Your task to perform on an android device: set the stopwatch Image 0: 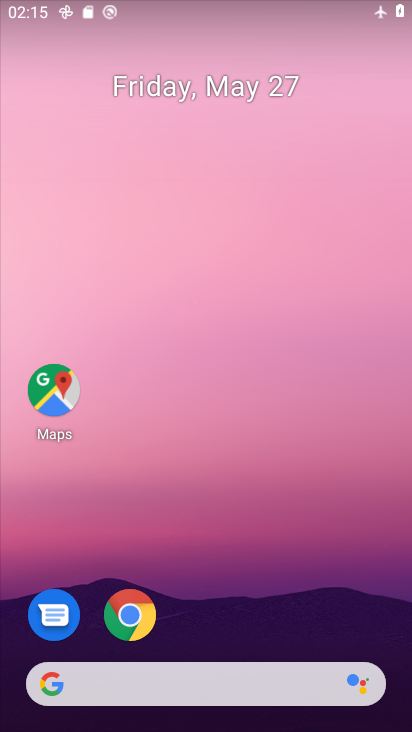
Step 0: drag from (365, 633) to (365, 181)
Your task to perform on an android device: set the stopwatch Image 1: 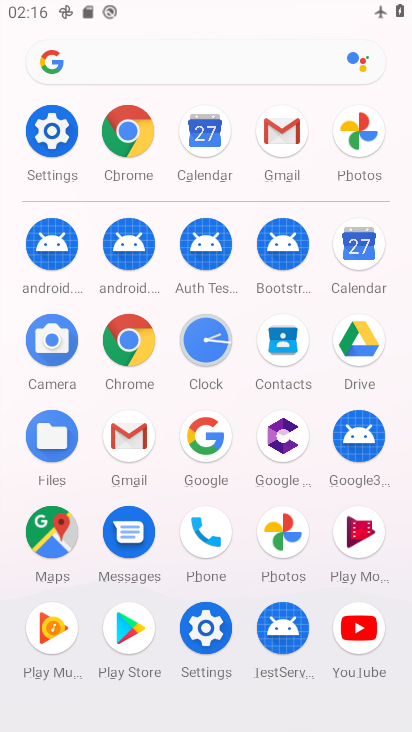
Step 1: click (204, 353)
Your task to perform on an android device: set the stopwatch Image 2: 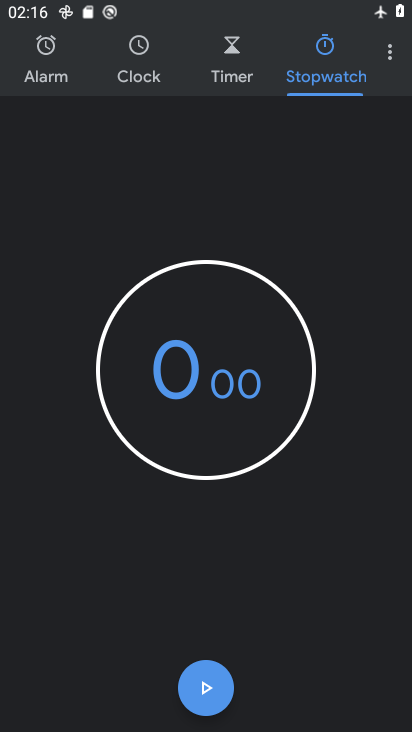
Step 2: click (221, 690)
Your task to perform on an android device: set the stopwatch Image 3: 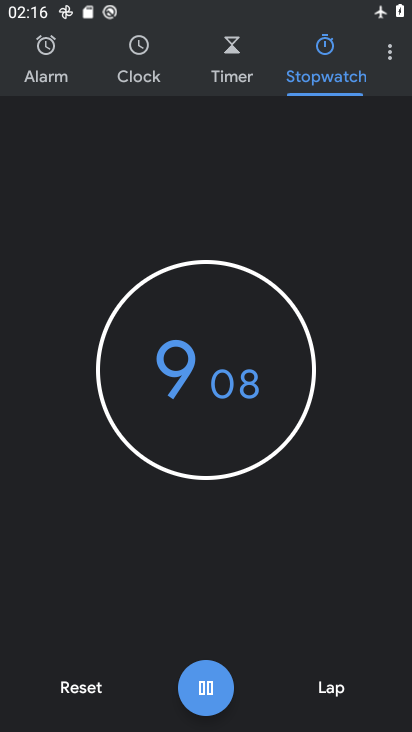
Step 3: task complete